Your task to perform on an android device: Open Yahoo.com Image 0: 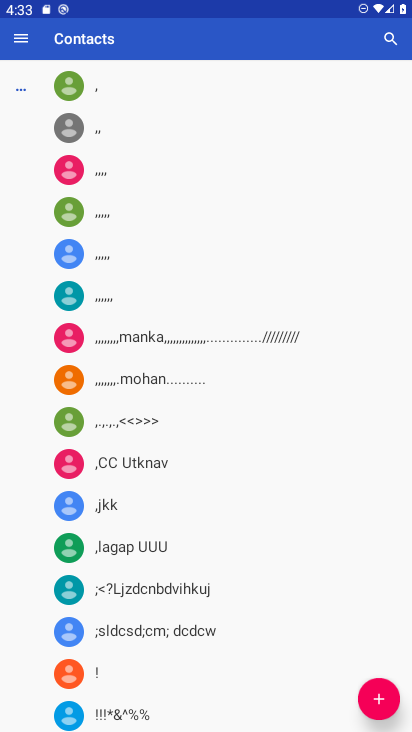
Step 0: press home button
Your task to perform on an android device: Open Yahoo.com Image 1: 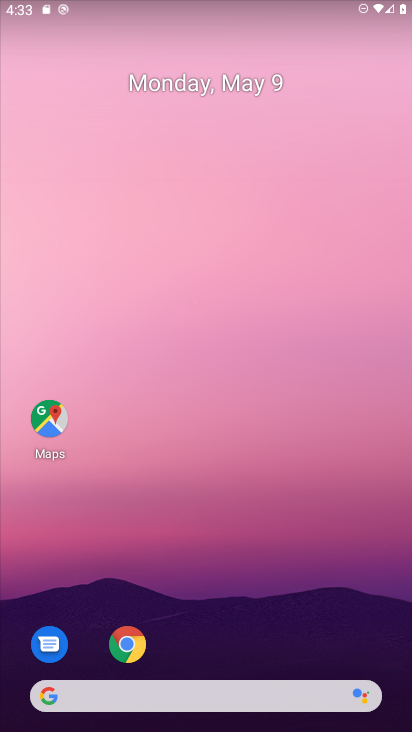
Step 1: click (123, 641)
Your task to perform on an android device: Open Yahoo.com Image 2: 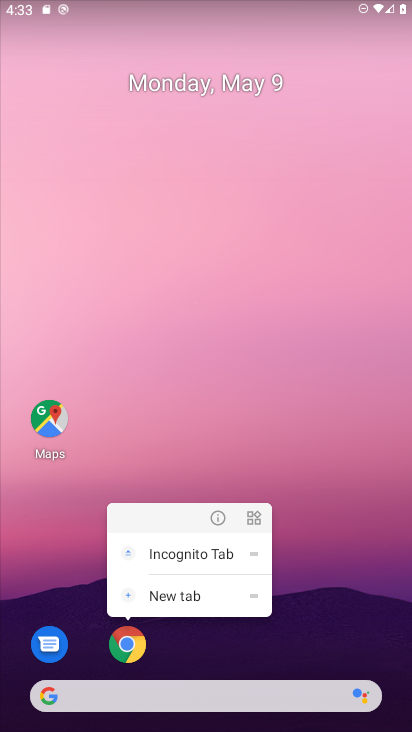
Step 2: click (124, 641)
Your task to perform on an android device: Open Yahoo.com Image 3: 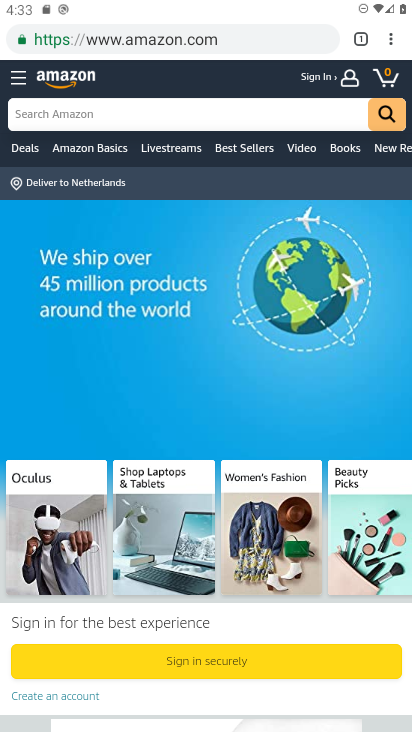
Step 3: click (196, 36)
Your task to perform on an android device: Open Yahoo.com Image 4: 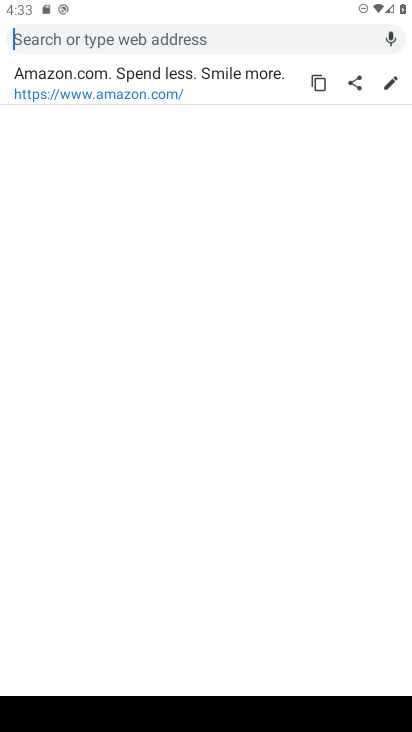
Step 4: type "Yahoo.com"
Your task to perform on an android device: Open Yahoo.com Image 5: 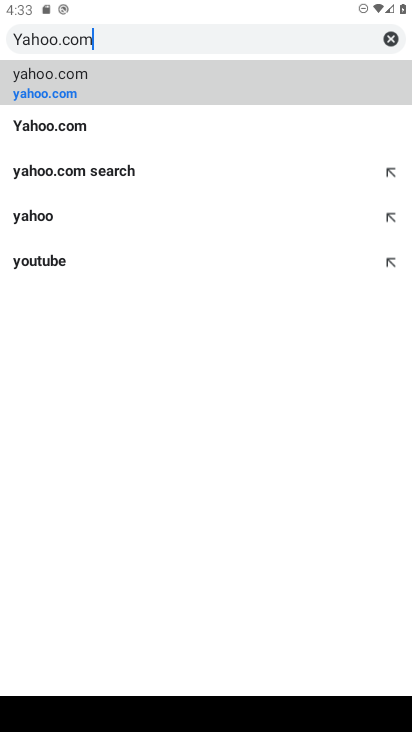
Step 5: type ""
Your task to perform on an android device: Open Yahoo.com Image 6: 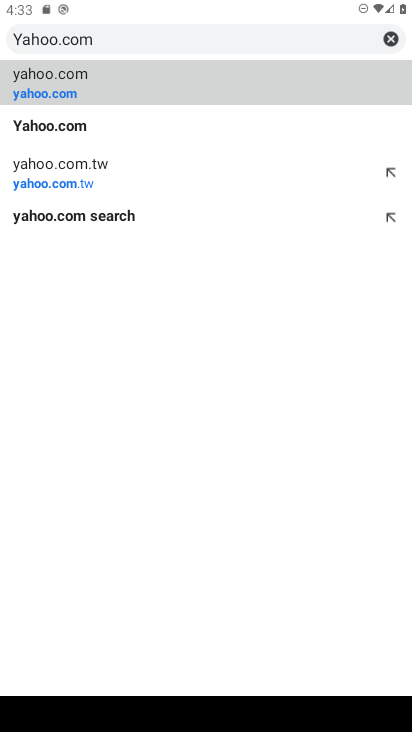
Step 6: click (46, 123)
Your task to perform on an android device: Open Yahoo.com Image 7: 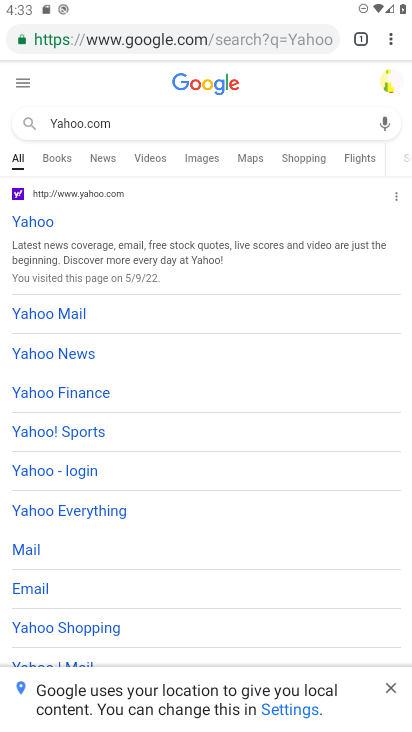
Step 7: click (32, 219)
Your task to perform on an android device: Open Yahoo.com Image 8: 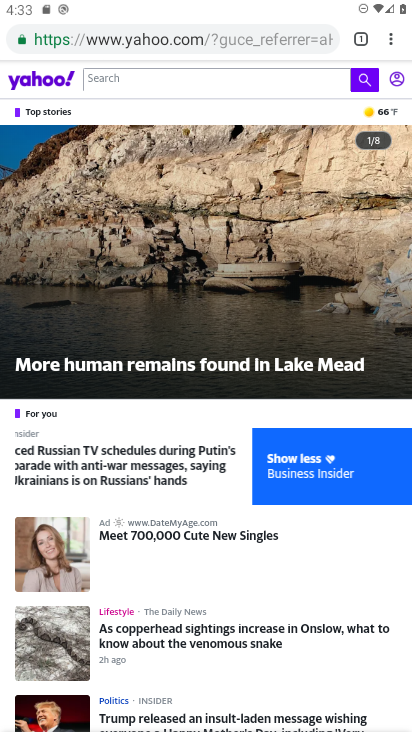
Step 8: task complete